Your task to perform on an android device: Go to eBay Image 0: 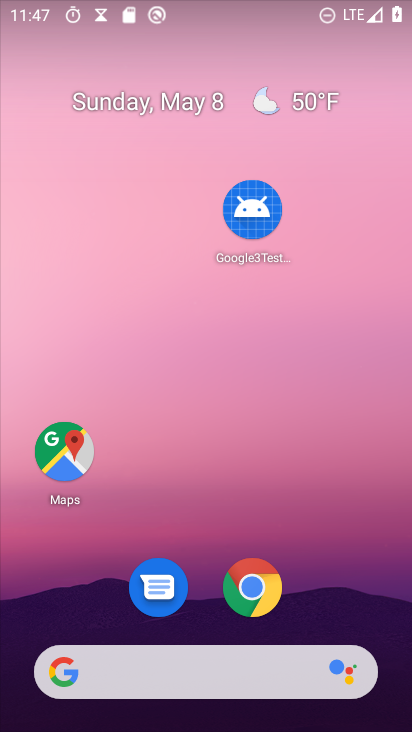
Step 0: click (256, 575)
Your task to perform on an android device: Go to eBay Image 1: 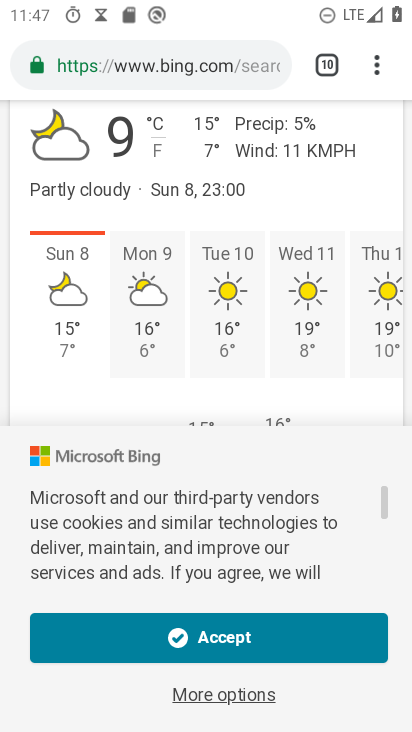
Step 1: click (330, 65)
Your task to perform on an android device: Go to eBay Image 2: 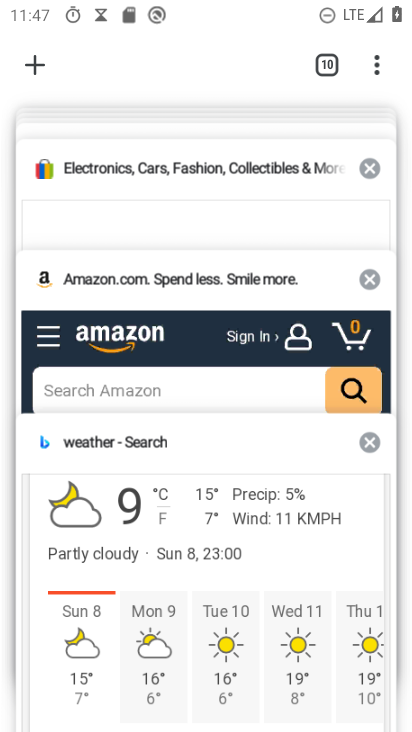
Step 2: click (168, 198)
Your task to perform on an android device: Go to eBay Image 3: 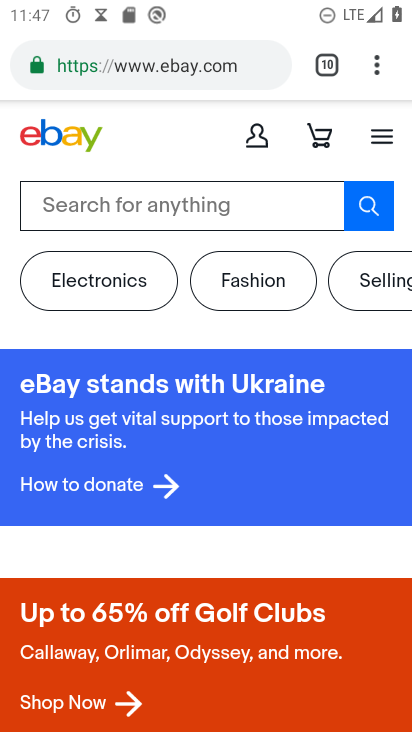
Step 3: task complete